Your task to perform on an android device: check the backup settings in the google photos Image 0: 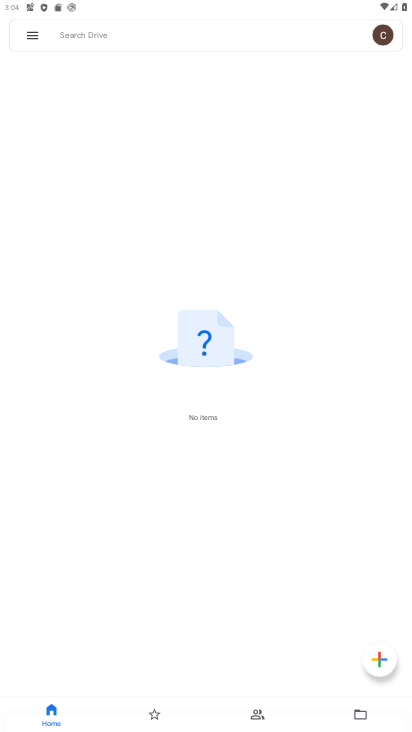
Step 0: press home button
Your task to perform on an android device: check the backup settings in the google photos Image 1: 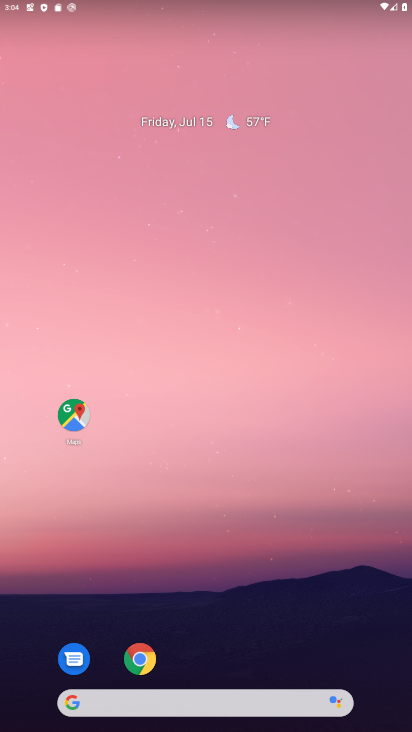
Step 1: drag from (215, 640) to (237, 84)
Your task to perform on an android device: check the backup settings in the google photos Image 2: 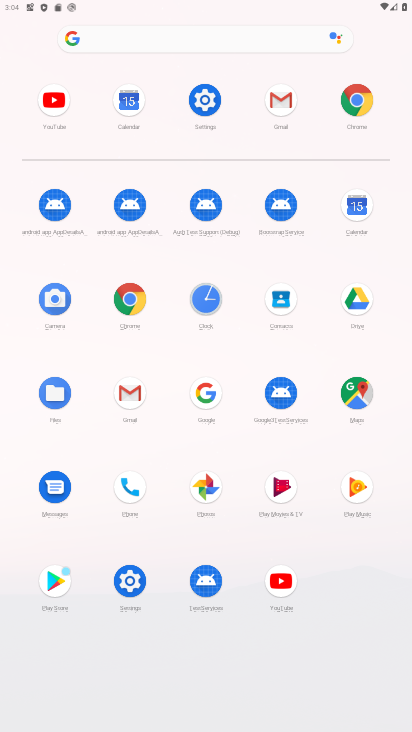
Step 2: click (208, 493)
Your task to perform on an android device: check the backup settings in the google photos Image 3: 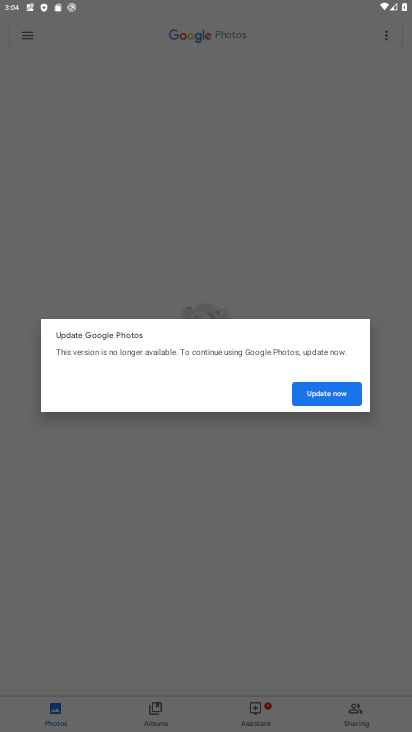
Step 3: click (343, 396)
Your task to perform on an android device: check the backup settings in the google photos Image 4: 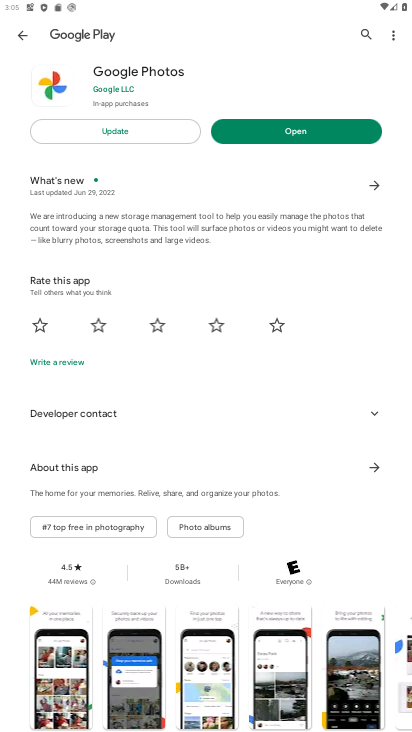
Step 4: click (270, 124)
Your task to perform on an android device: check the backup settings in the google photos Image 5: 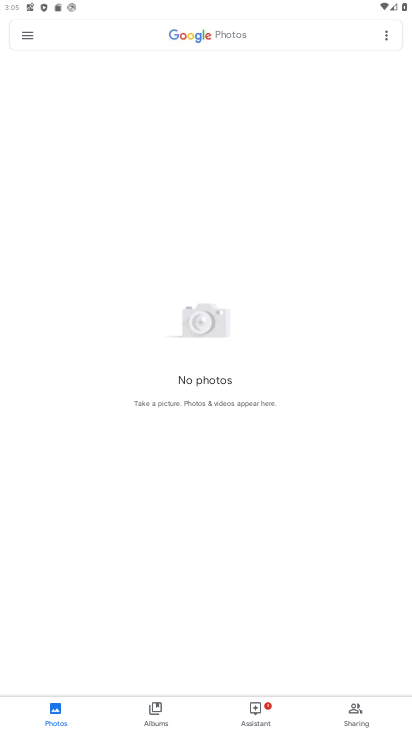
Step 5: click (24, 35)
Your task to perform on an android device: check the backup settings in the google photos Image 6: 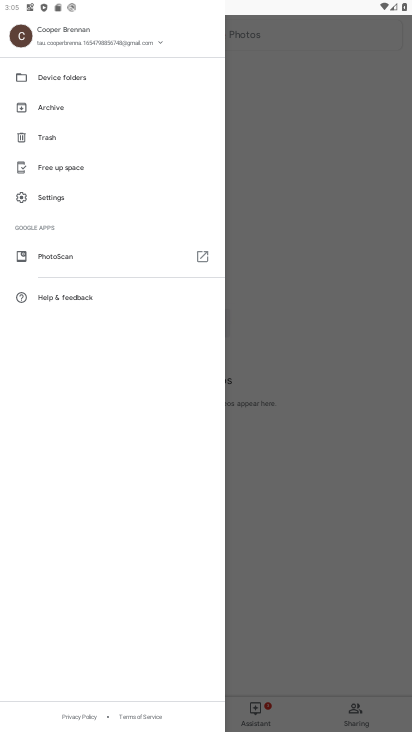
Step 6: click (34, 202)
Your task to perform on an android device: check the backup settings in the google photos Image 7: 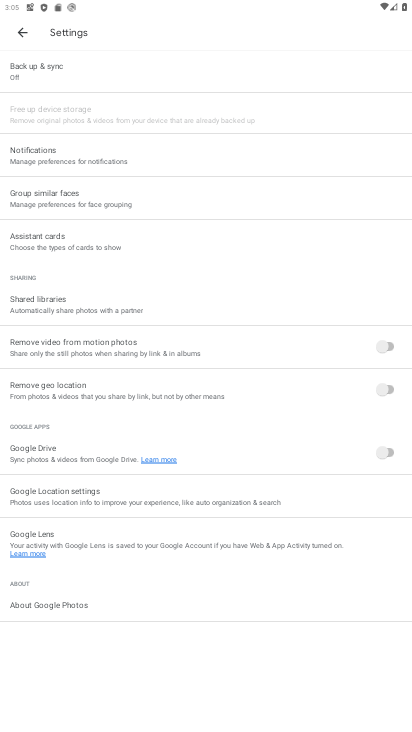
Step 7: click (72, 81)
Your task to perform on an android device: check the backup settings in the google photos Image 8: 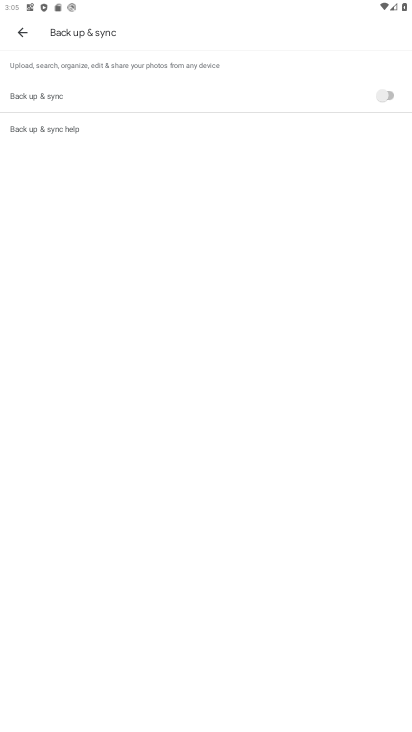
Step 8: task complete